Your task to perform on an android device: Go to location settings Image 0: 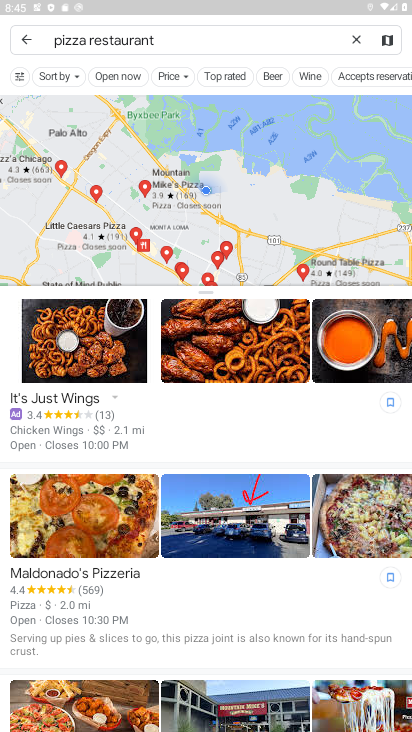
Step 0: press home button
Your task to perform on an android device: Go to location settings Image 1: 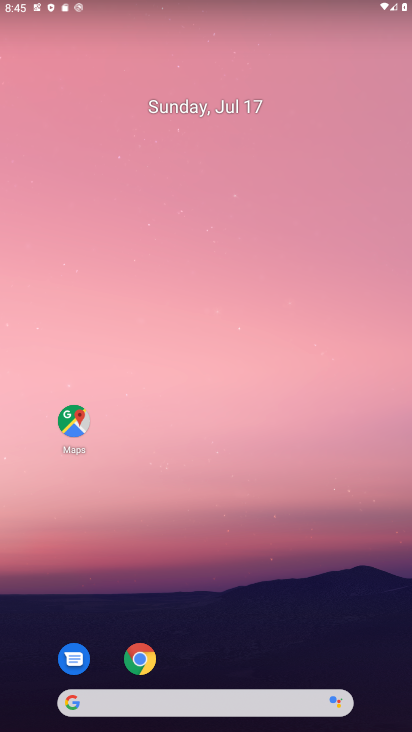
Step 1: drag from (216, 649) to (216, 125)
Your task to perform on an android device: Go to location settings Image 2: 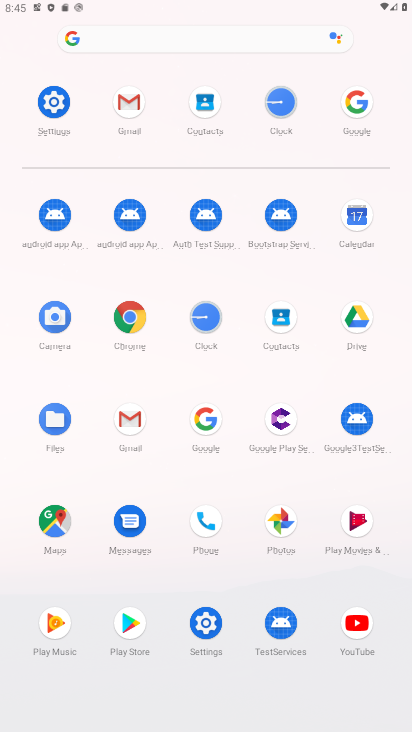
Step 2: click (54, 102)
Your task to perform on an android device: Go to location settings Image 3: 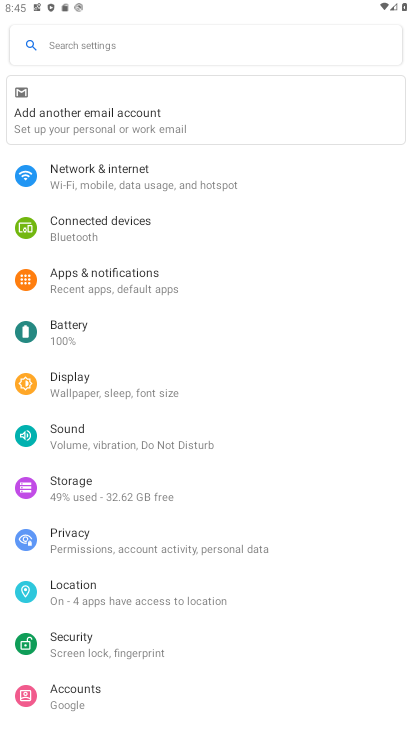
Step 3: click (117, 582)
Your task to perform on an android device: Go to location settings Image 4: 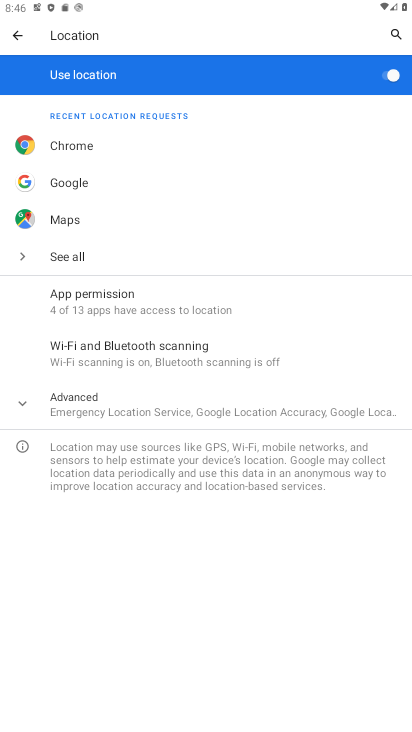
Step 4: task complete